Your task to perform on an android device: Go to wifi settings Image 0: 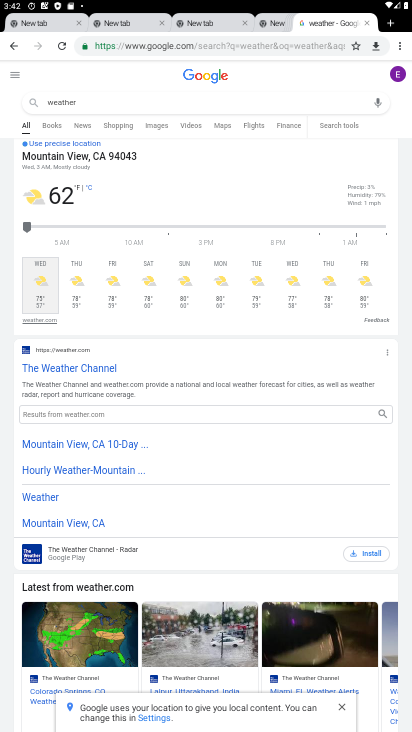
Step 0: press home button
Your task to perform on an android device: Go to wifi settings Image 1: 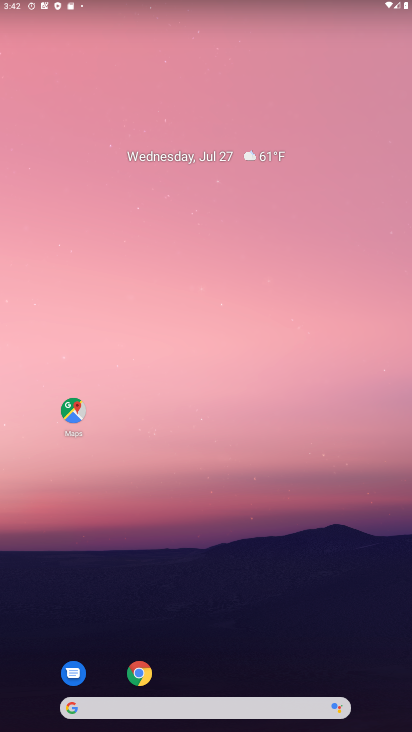
Step 1: drag from (66, 605) to (233, 21)
Your task to perform on an android device: Go to wifi settings Image 2: 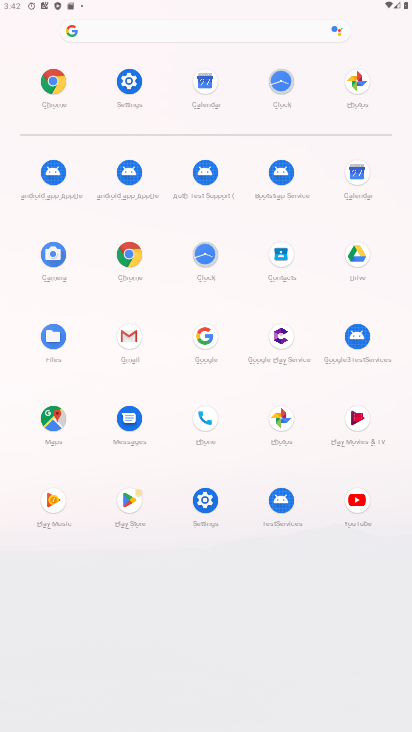
Step 2: click (222, 502)
Your task to perform on an android device: Go to wifi settings Image 3: 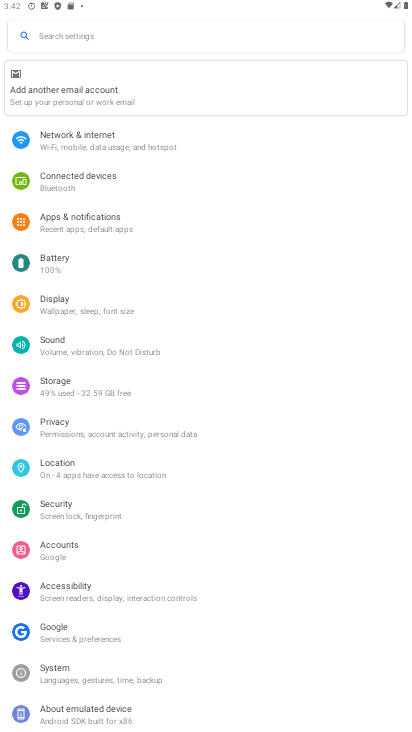
Step 3: click (124, 141)
Your task to perform on an android device: Go to wifi settings Image 4: 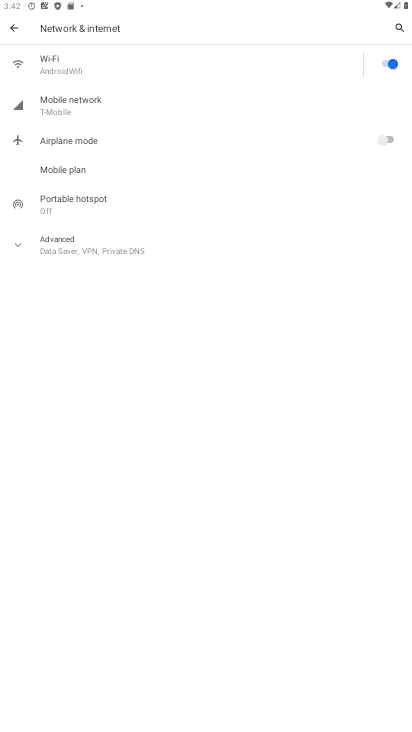
Step 4: task complete